Your task to perform on an android device: Show me recent news Image 0: 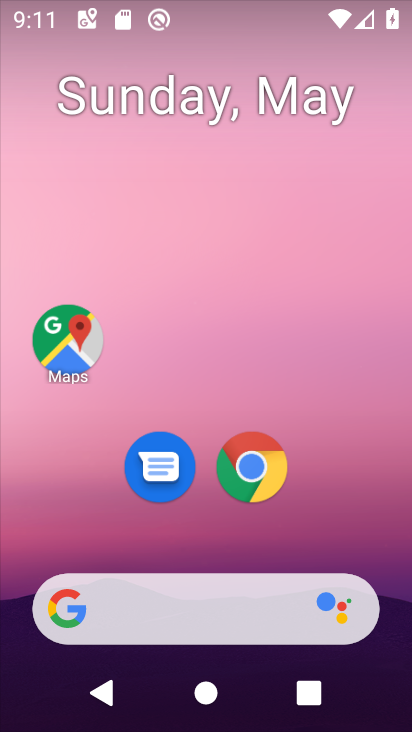
Step 0: drag from (363, 542) to (342, 142)
Your task to perform on an android device: Show me recent news Image 1: 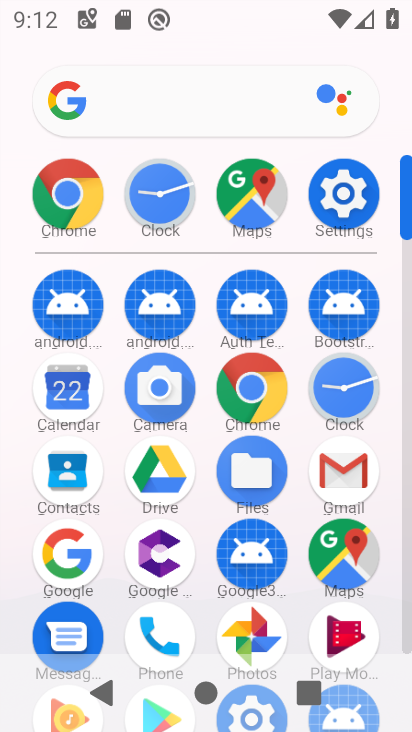
Step 1: click (245, 405)
Your task to perform on an android device: Show me recent news Image 2: 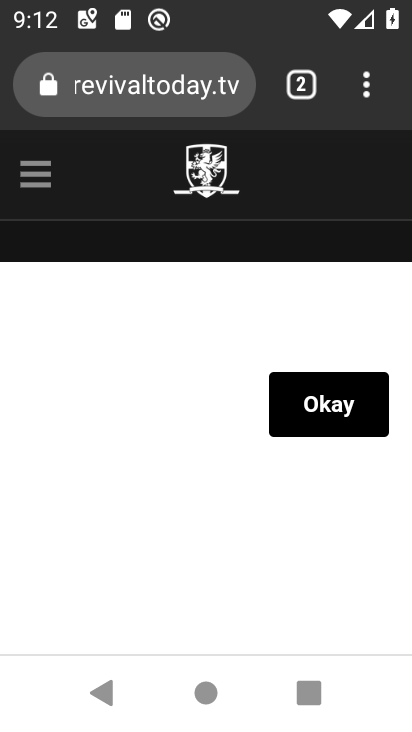
Step 2: click (313, 88)
Your task to perform on an android device: Show me recent news Image 3: 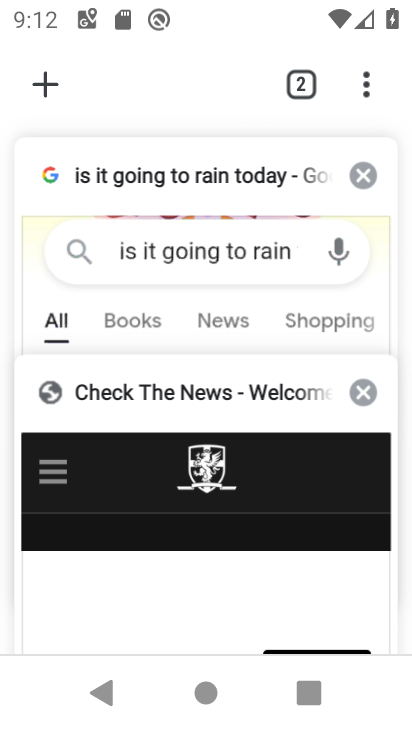
Step 3: click (30, 88)
Your task to perform on an android device: Show me recent news Image 4: 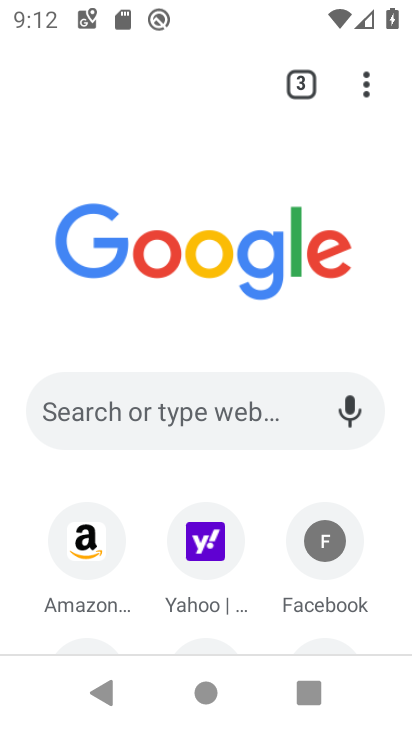
Step 4: click (213, 406)
Your task to perform on an android device: Show me recent news Image 5: 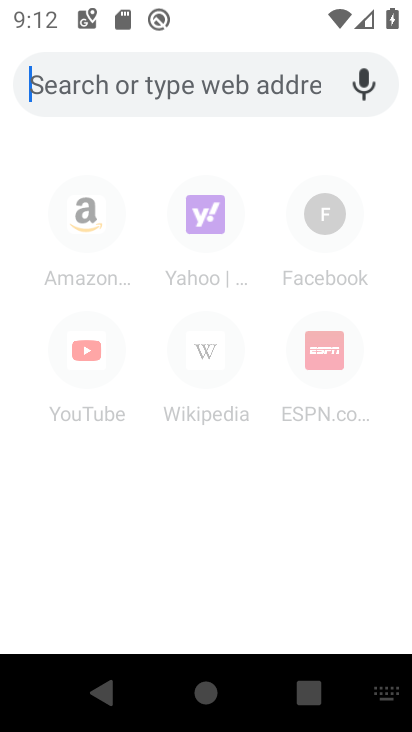
Step 5: type "recent news"
Your task to perform on an android device: Show me recent news Image 6: 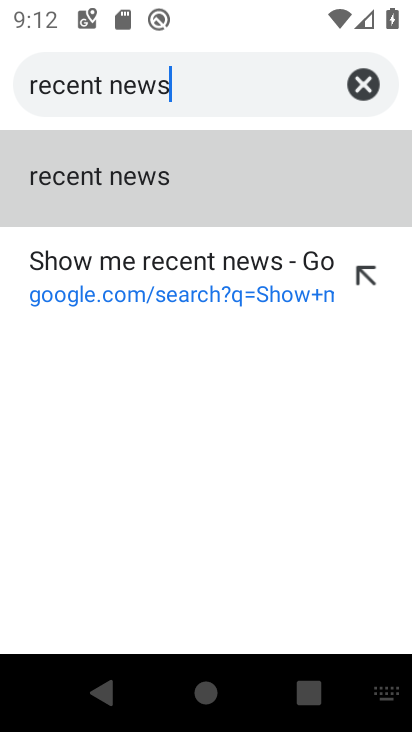
Step 6: click (155, 194)
Your task to perform on an android device: Show me recent news Image 7: 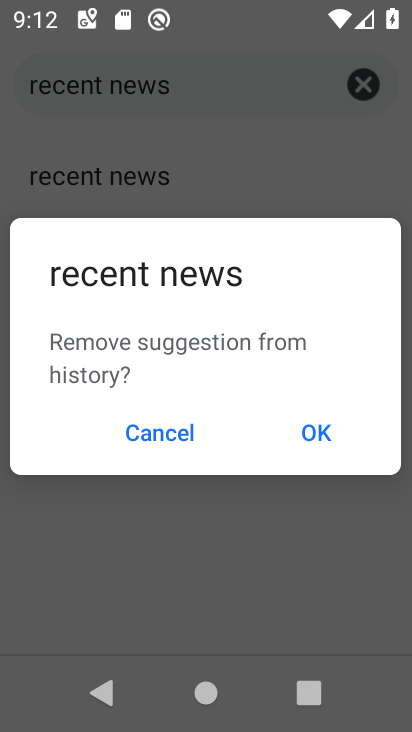
Step 7: click (317, 424)
Your task to perform on an android device: Show me recent news Image 8: 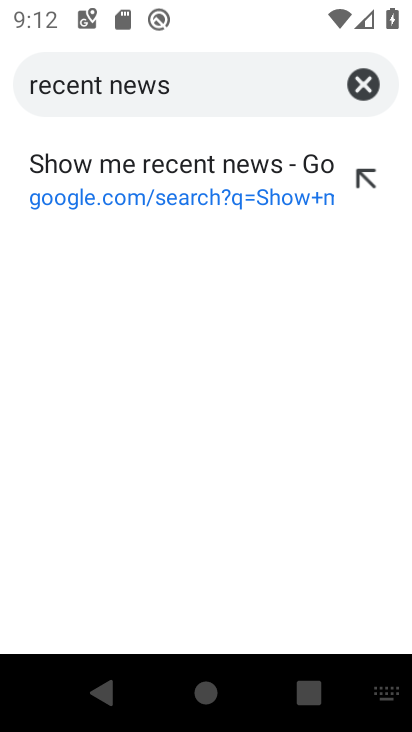
Step 8: click (216, 162)
Your task to perform on an android device: Show me recent news Image 9: 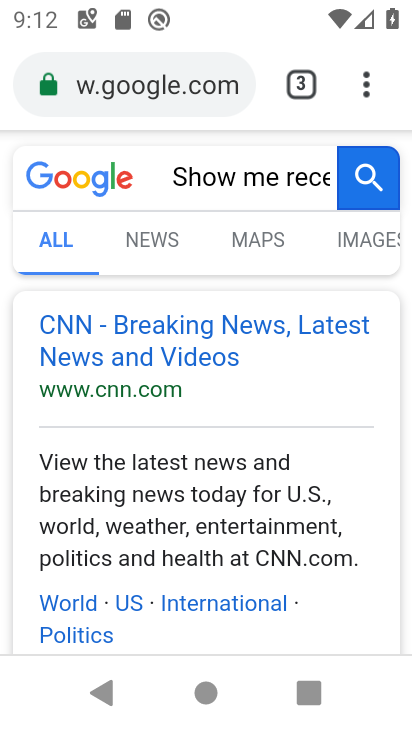
Step 9: task complete